Your task to perform on an android device: turn on wifi Image 0: 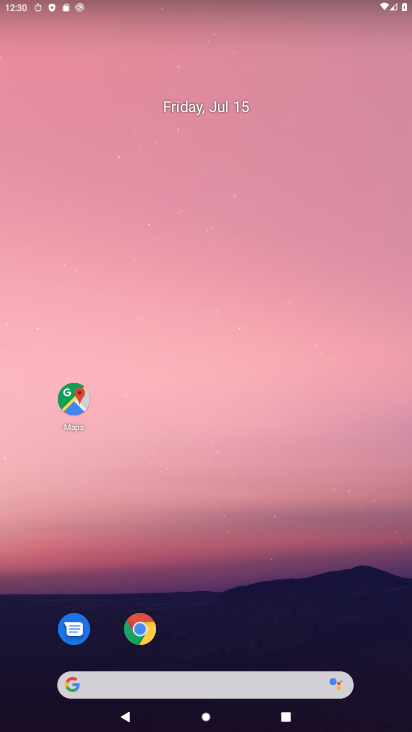
Step 0: drag from (198, 605) to (238, 15)
Your task to perform on an android device: turn on wifi Image 1: 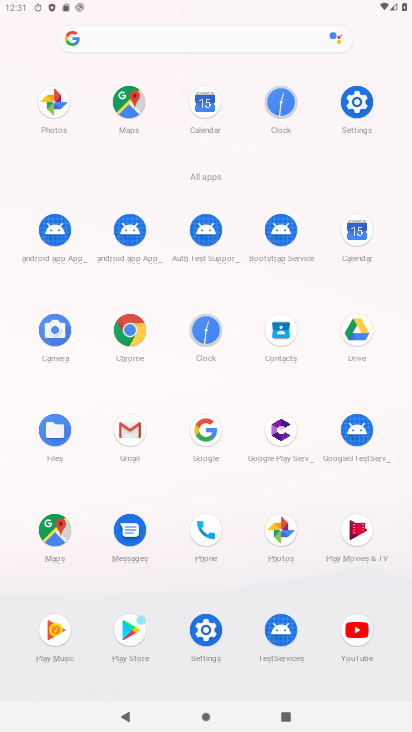
Step 1: click (209, 644)
Your task to perform on an android device: turn on wifi Image 2: 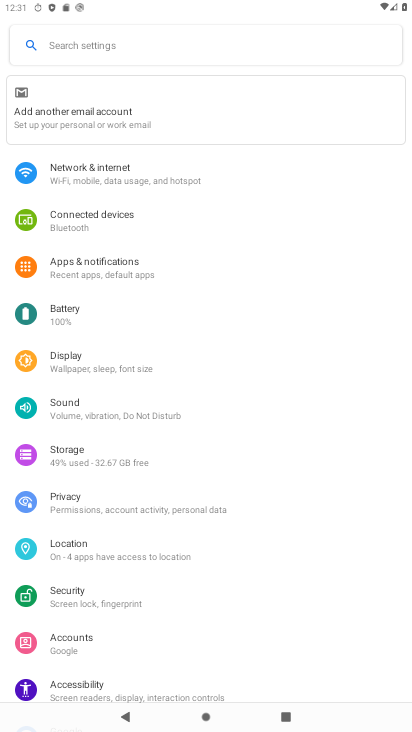
Step 2: click (104, 177)
Your task to perform on an android device: turn on wifi Image 3: 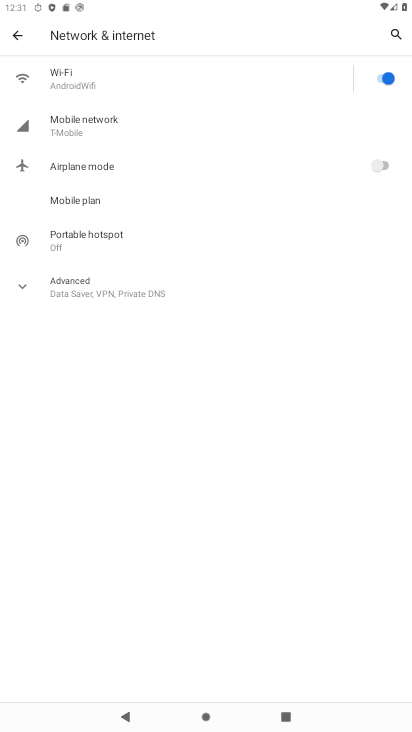
Step 3: task complete